Your task to perform on an android device: search for starred emails in the gmail app Image 0: 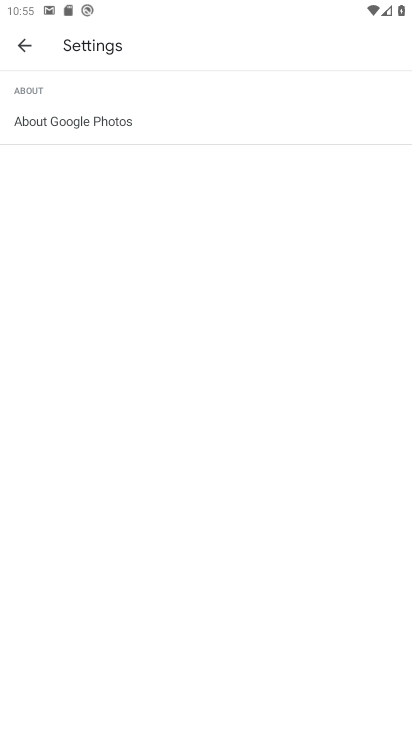
Step 0: press home button
Your task to perform on an android device: search for starred emails in the gmail app Image 1: 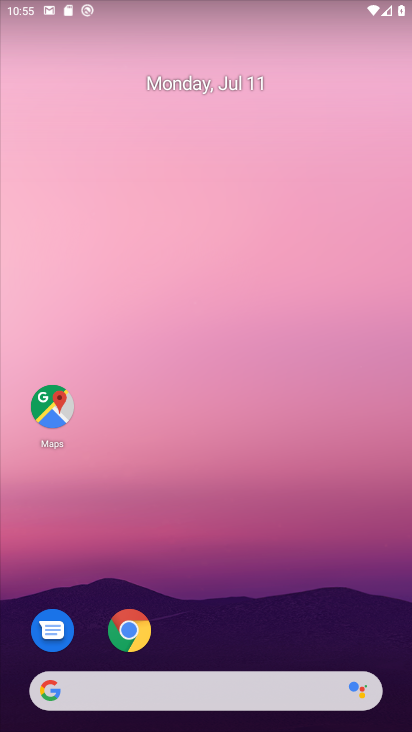
Step 1: drag from (244, 684) to (301, 10)
Your task to perform on an android device: search for starred emails in the gmail app Image 2: 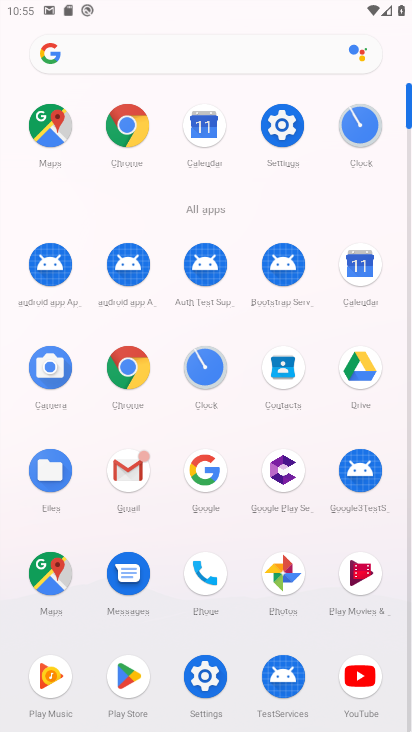
Step 2: click (144, 467)
Your task to perform on an android device: search for starred emails in the gmail app Image 3: 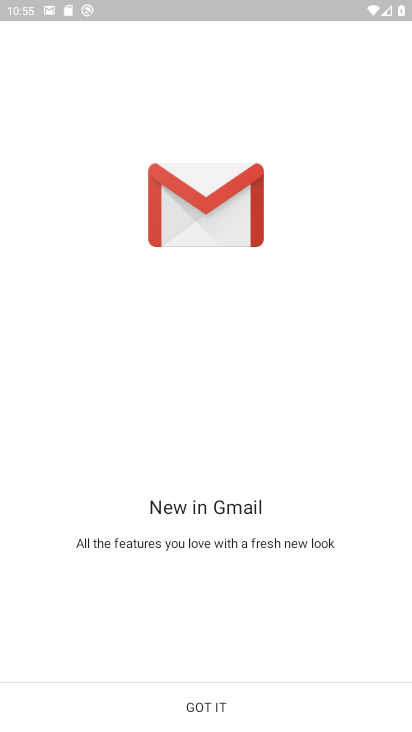
Step 3: click (253, 713)
Your task to perform on an android device: search for starred emails in the gmail app Image 4: 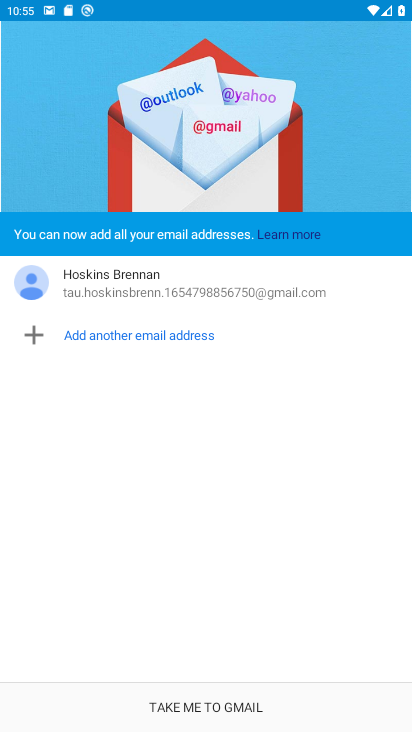
Step 4: click (201, 701)
Your task to perform on an android device: search for starred emails in the gmail app Image 5: 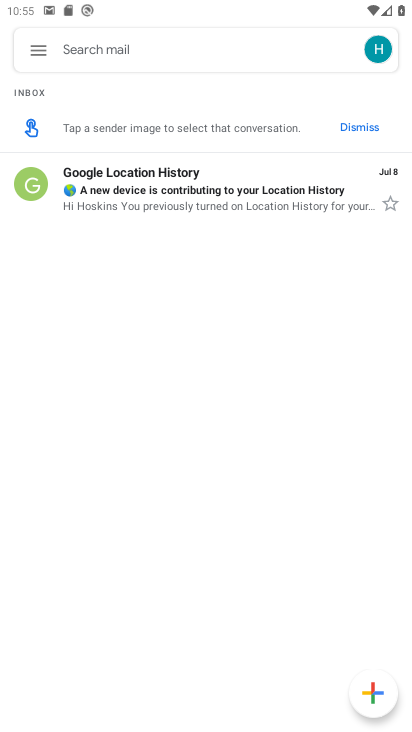
Step 5: click (41, 53)
Your task to perform on an android device: search for starred emails in the gmail app Image 6: 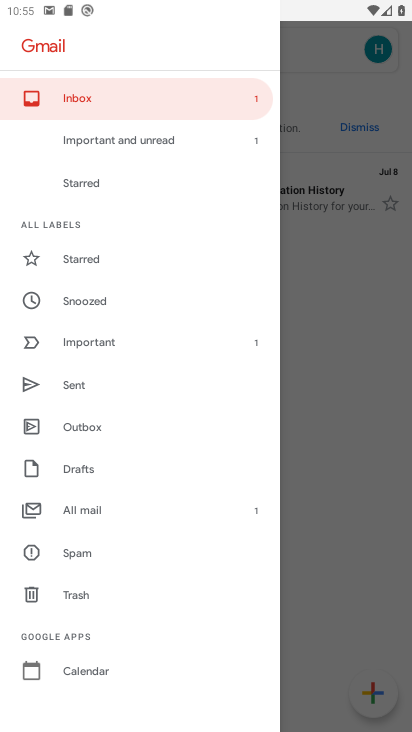
Step 6: click (95, 248)
Your task to perform on an android device: search for starred emails in the gmail app Image 7: 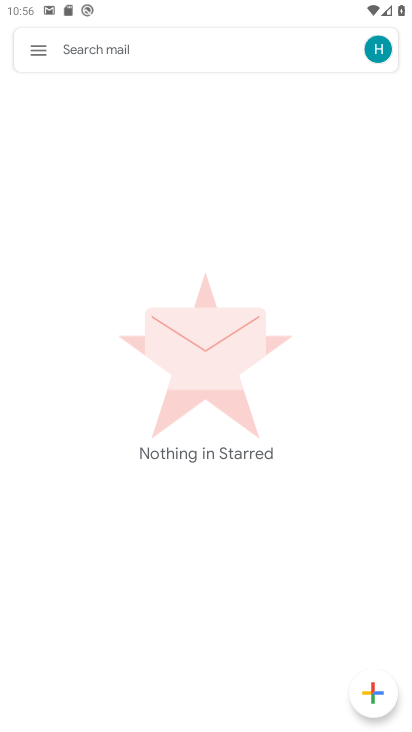
Step 7: task complete